Your task to perform on an android device: Go to Android settings Image 0: 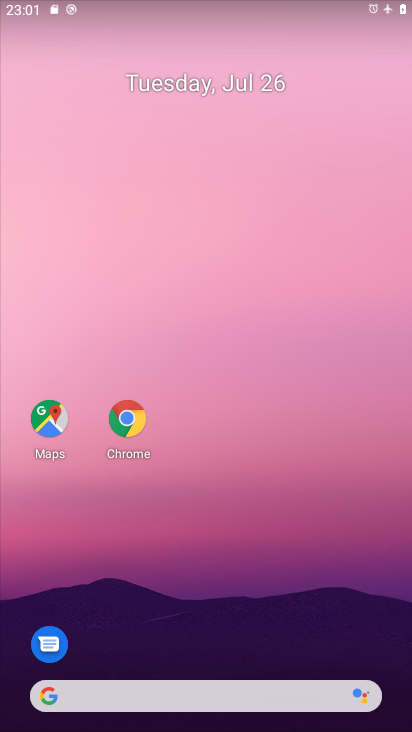
Step 0: drag from (220, 665) to (215, 254)
Your task to perform on an android device: Go to Android settings Image 1: 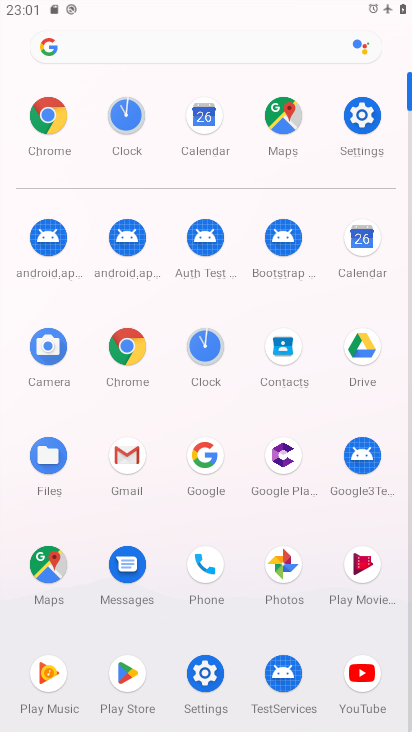
Step 1: click (358, 127)
Your task to perform on an android device: Go to Android settings Image 2: 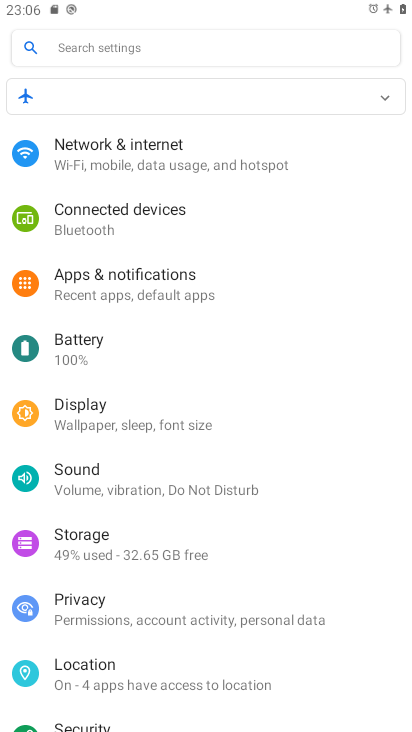
Step 2: task complete